Your task to perform on an android device: turn on the 24-hour format for clock Image 0: 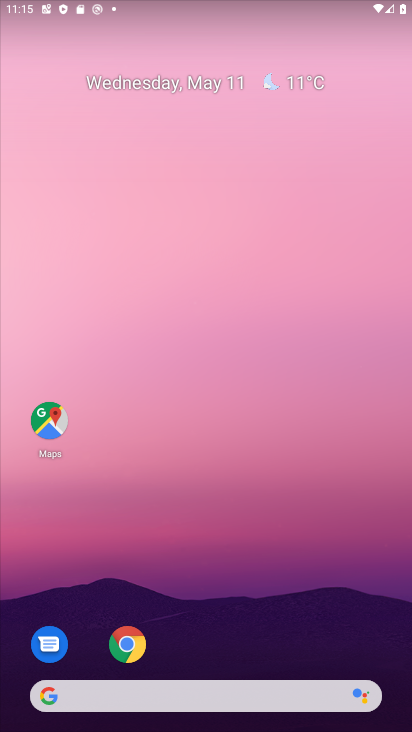
Step 0: drag from (215, 664) to (232, 55)
Your task to perform on an android device: turn on the 24-hour format for clock Image 1: 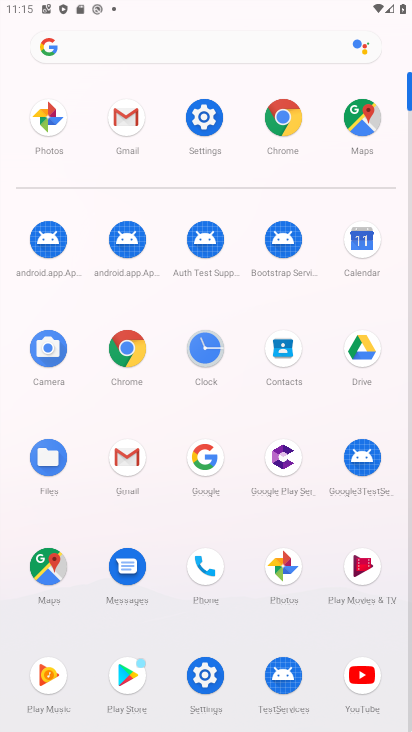
Step 1: click (203, 339)
Your task to perform on an android device: turn on the 24-hour format for clock Image 2: 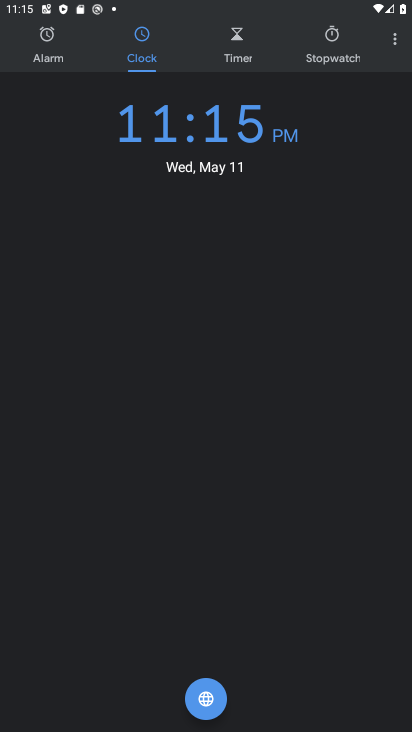
Step 2: click (392, 40)
Your task to perform on an android device: turn on the 24-hour format for clock Image 3: 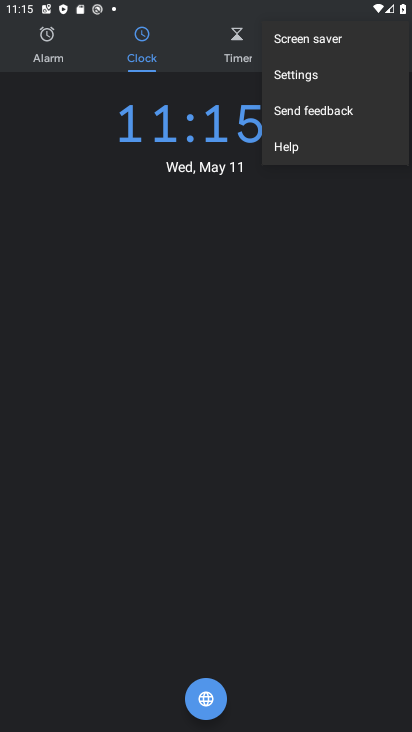
Step 3: click (320, 77)
Your task to perform on an android device: turn on the 24-hour format for clock Image 4: 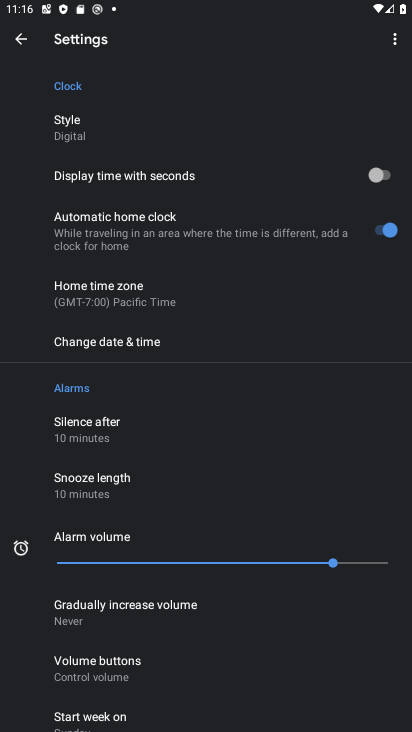
Step 4: drag from (196, 618) to (197, 415)
Your task to perform on an android device: turn on the 24-hour format for clock Image 5: 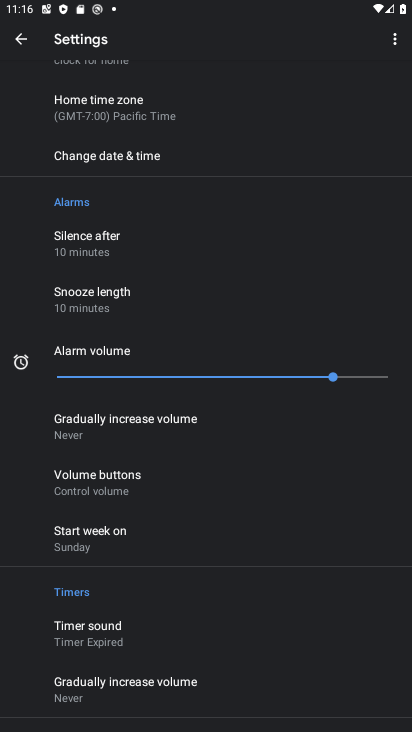
Step 5: click (172, 156)
Your task to perform on an android device: turn on the 24-hour format for clock Image 6: 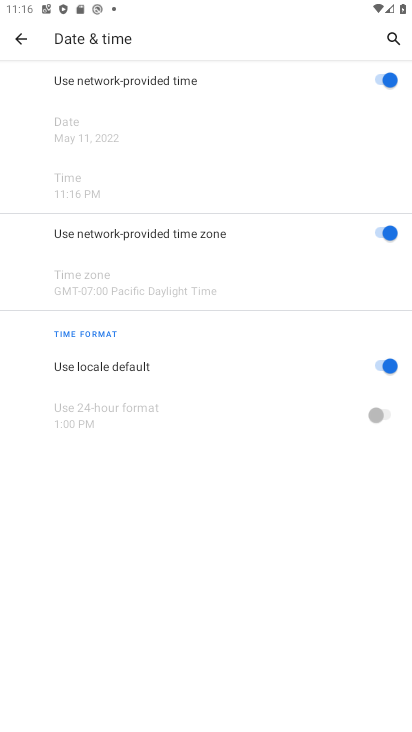
Step 6: click (385, 358)
Your task to perform on an android device: turn on the 24-hour format for clock Image 7: 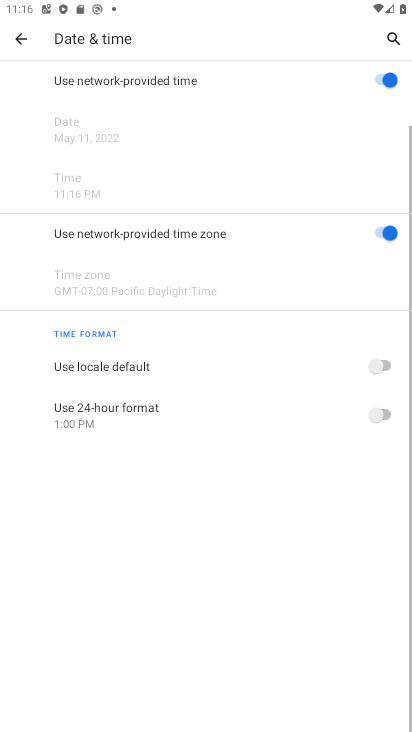
Step 7: click (382, 414)
Your task to perform on an android device: turn on the 24-hour format for clock Image 8: 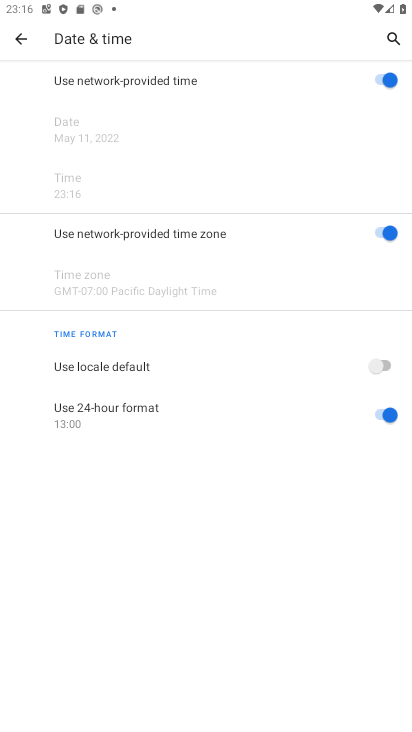
Step 8: task complete